Your task to perform on an android device: What is the capital of France? Image 0: 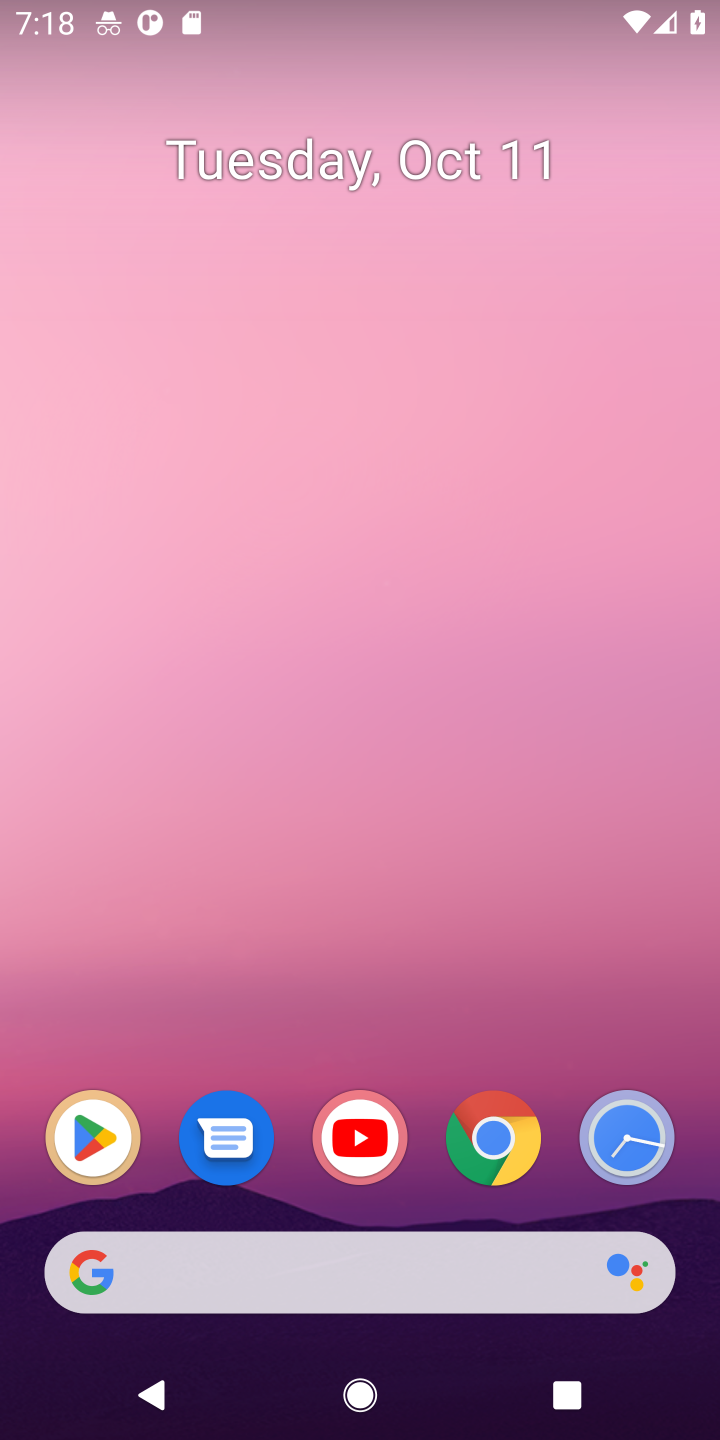
Step 0: click (473, 1146)
Your task to perform on an android device: What is the capital of France? Image 1: 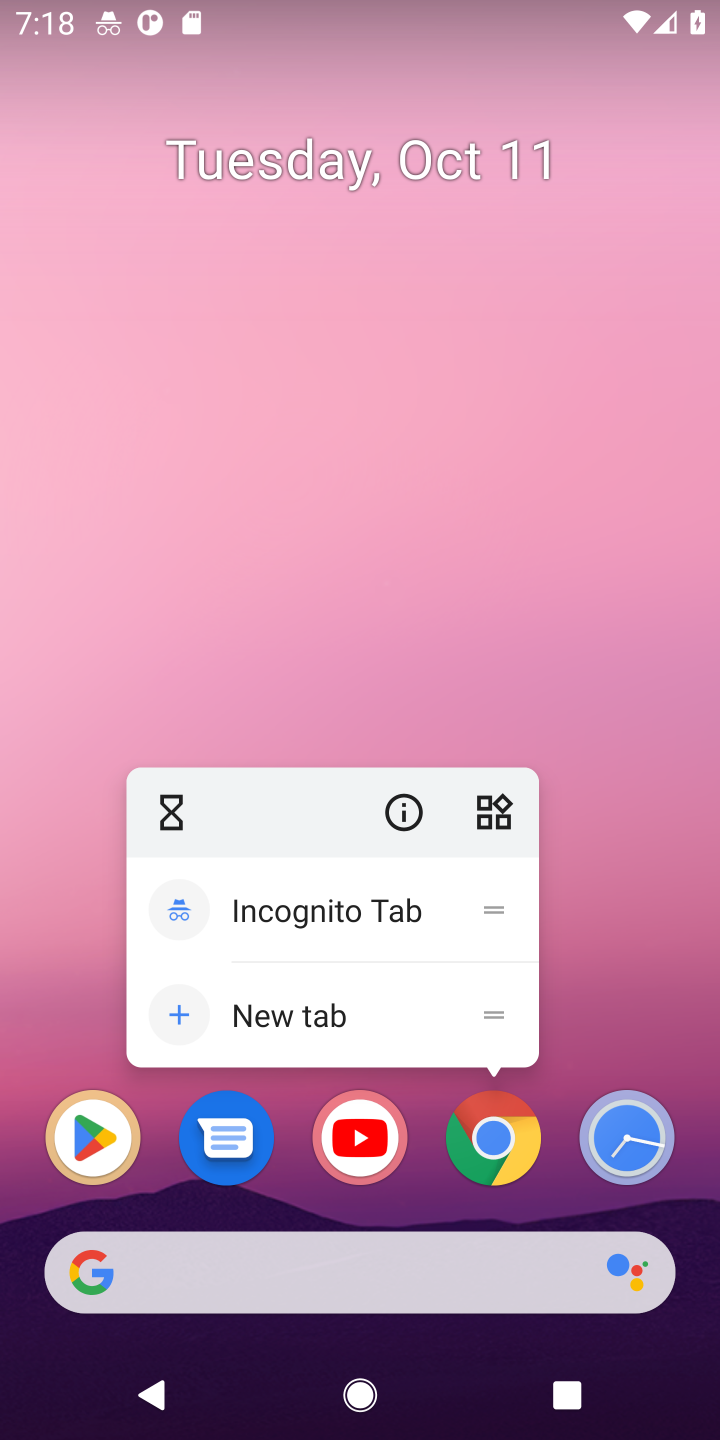
Step 1: click (290, 1258)
Your task to perform on an android device: What is the capital of France? Image 2: 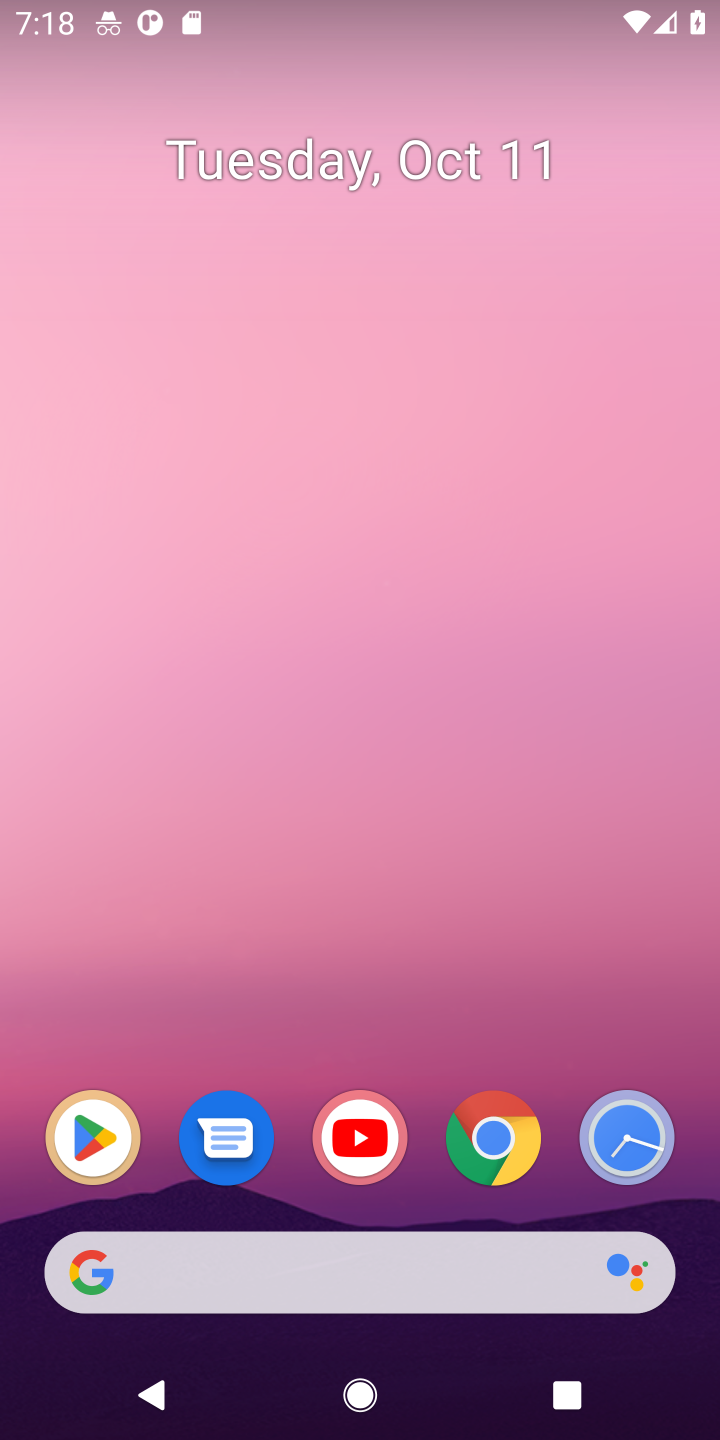
Step 2: click (290, 1258)
Your task to perform on an android device: What is the capital of France? Image 3: 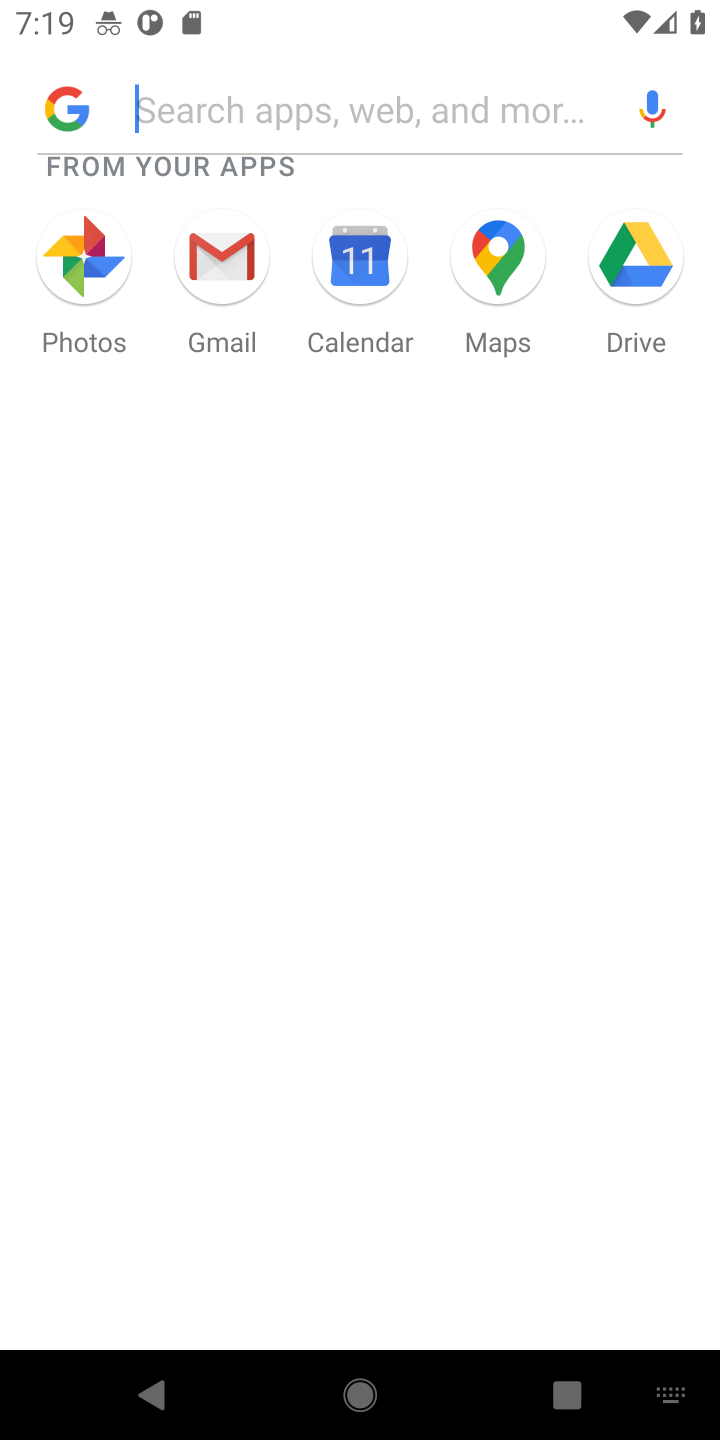
Step 3: type "What is the capital of France?"
Your task to perform on an android device: What is the capital of France? Image 4: 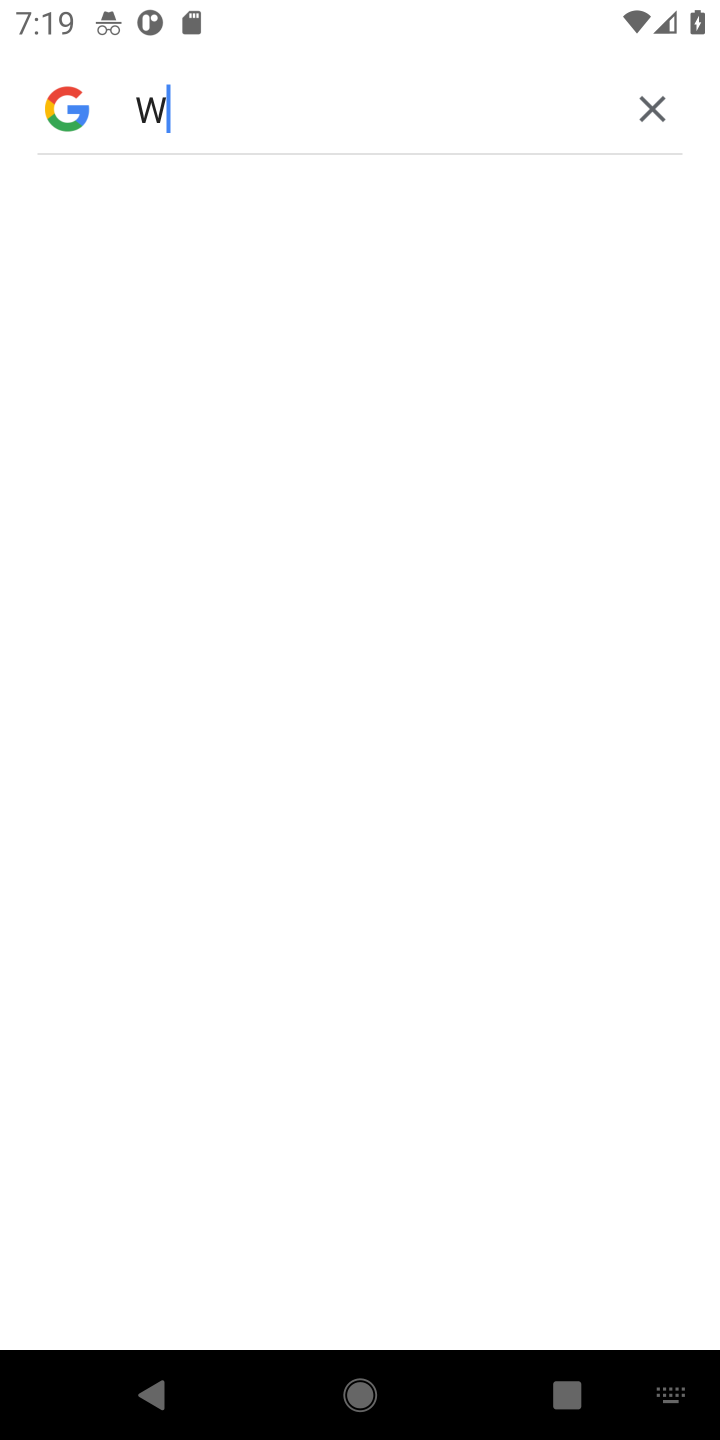
Step 4: click (632, 93)
Your task to perform on an android device: What is the capital of France? Image 5: 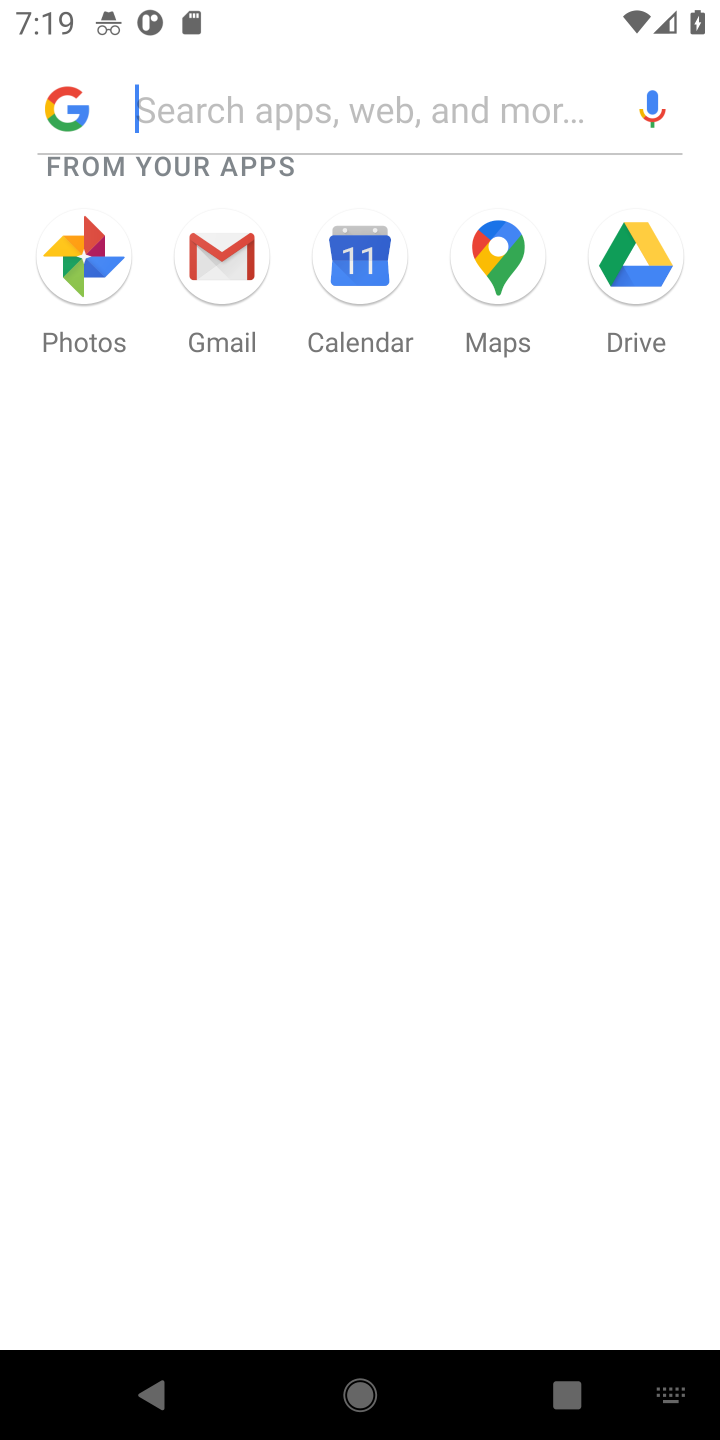
Step 5: type "What is the capital of France?"
Your task to perform on an android device: What is the capital of France? Image 6: 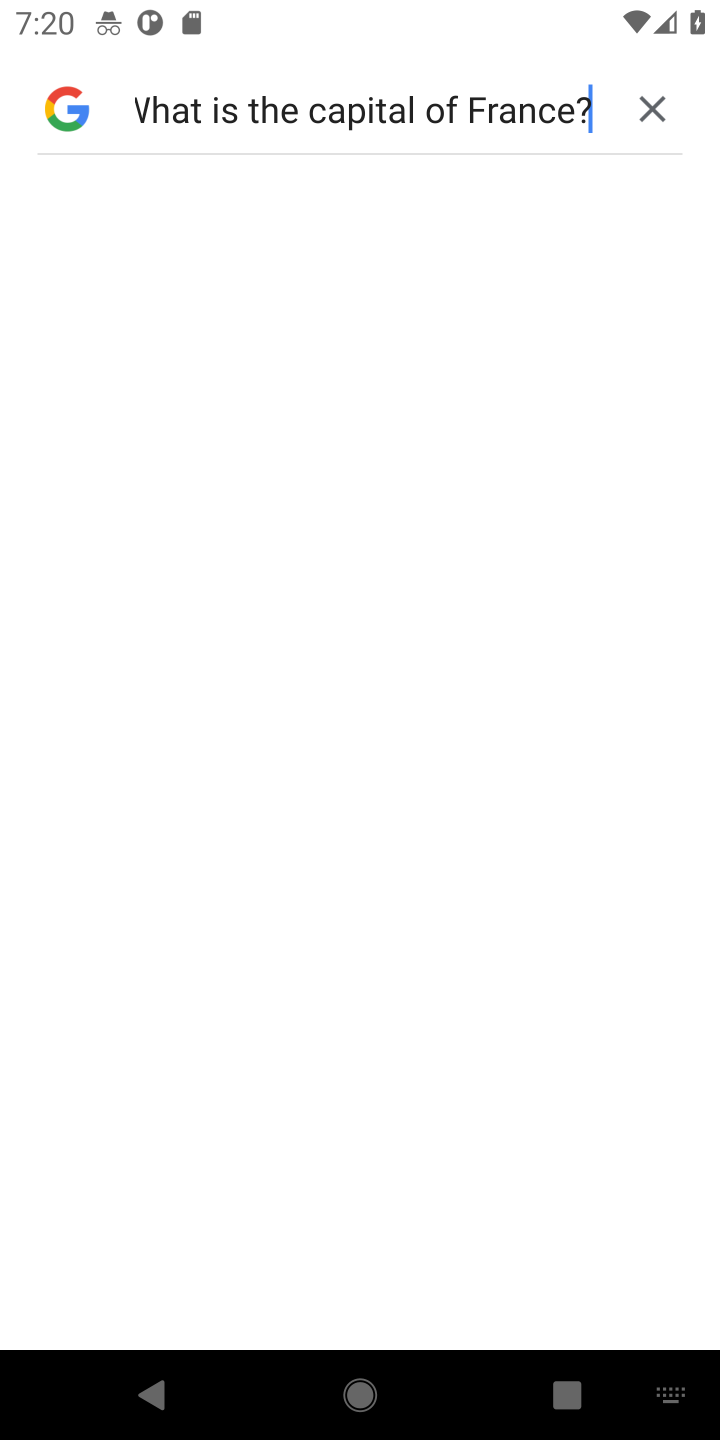
Step 6: click (664, 103)
Your task to perform on an android device: What is the capital of France? Image 7: 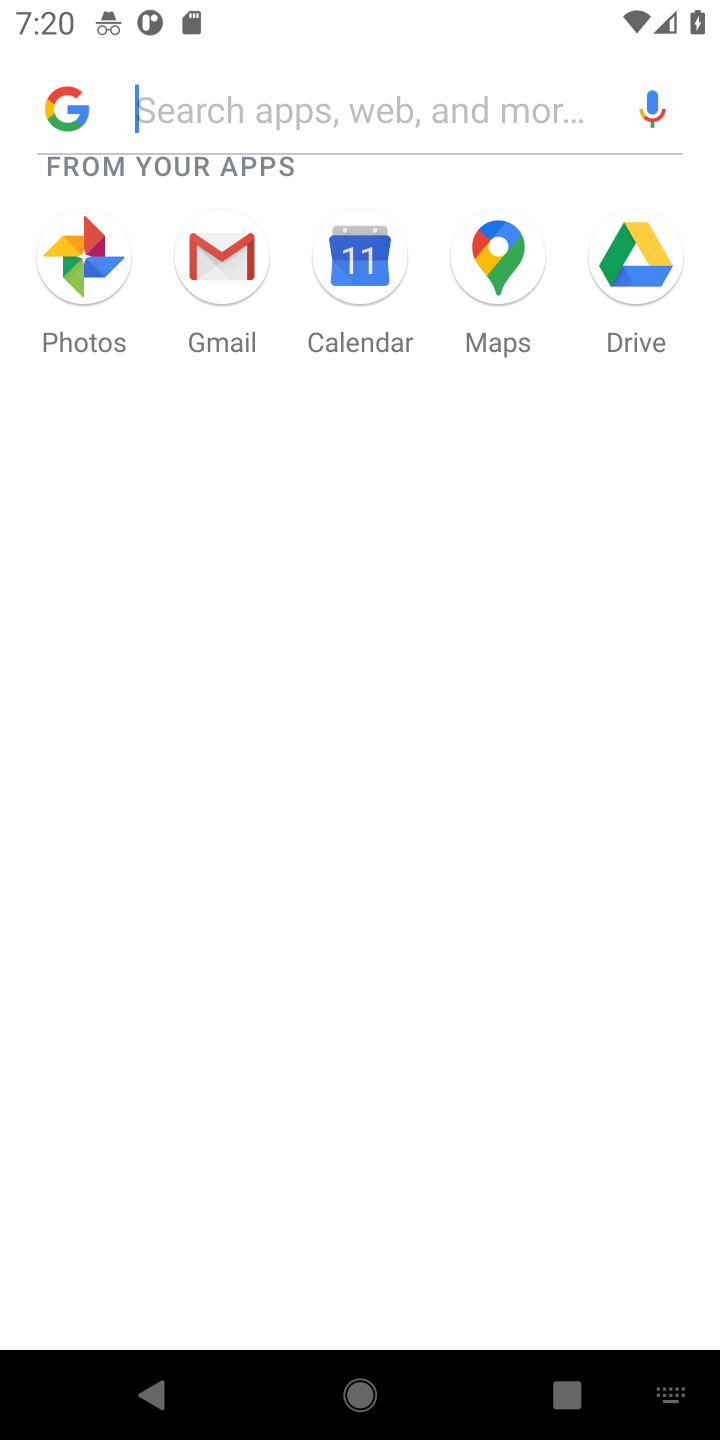
Step 7: press back button
Your task to perform on an android device: What is the capital of France? Image 8: 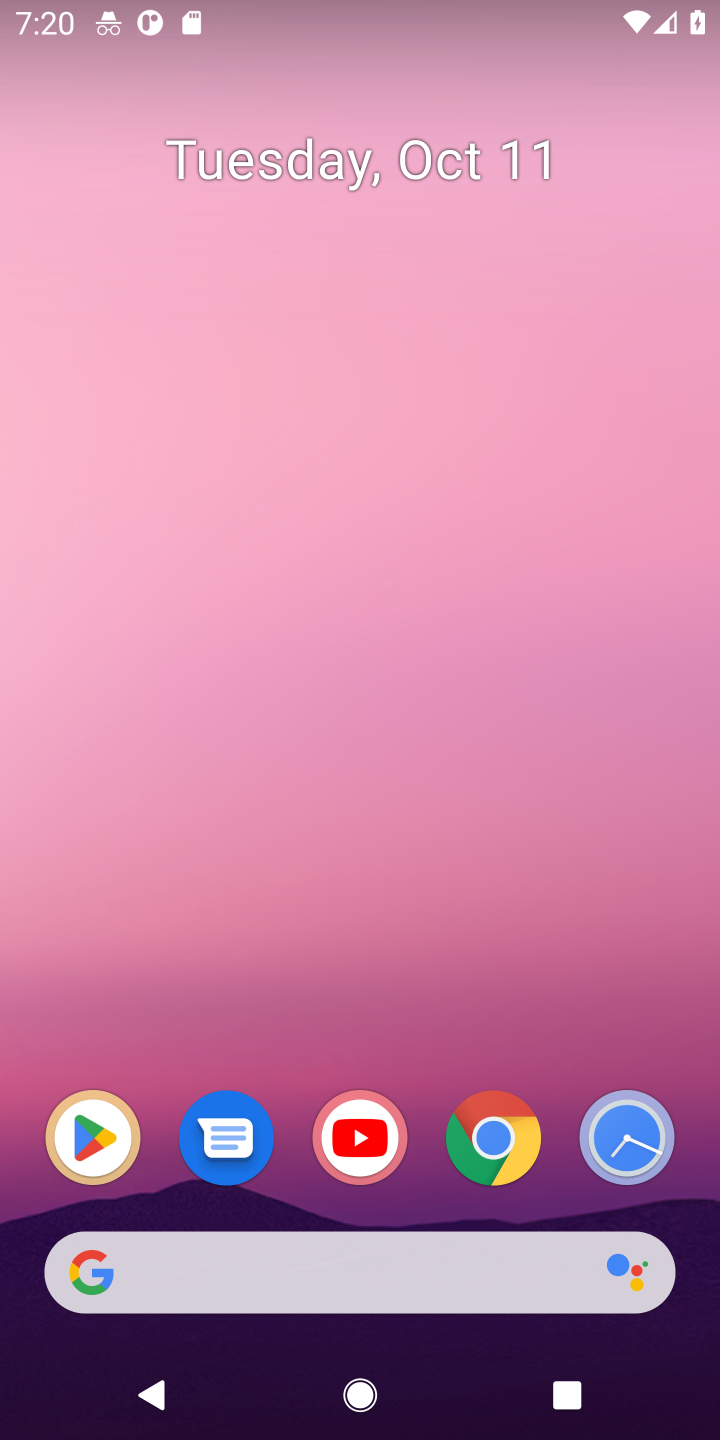
Step 8: click (250, 1277)
Your task to perform on an android device: What is the capital of France? Image 9: 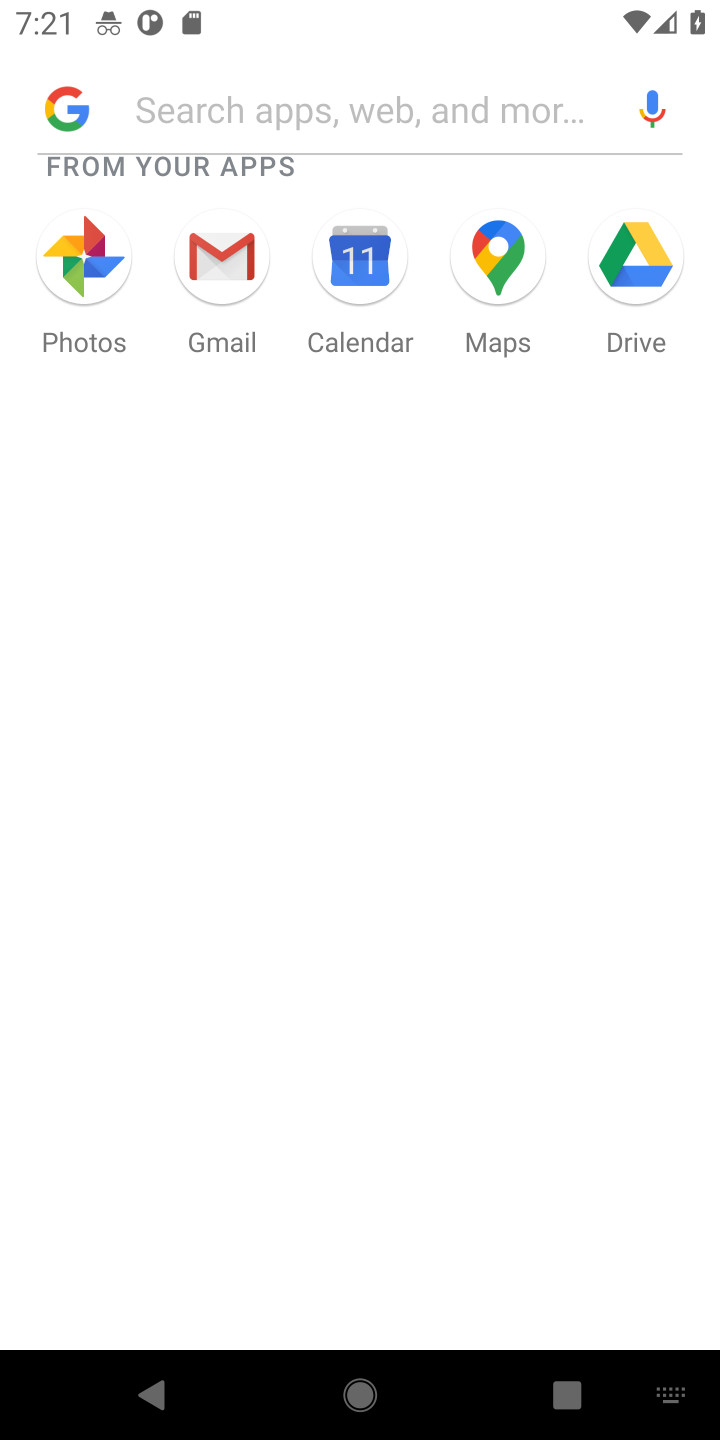
Step 9: press back button
Your task to perform on an android device: What is the capital of France? Image 10: 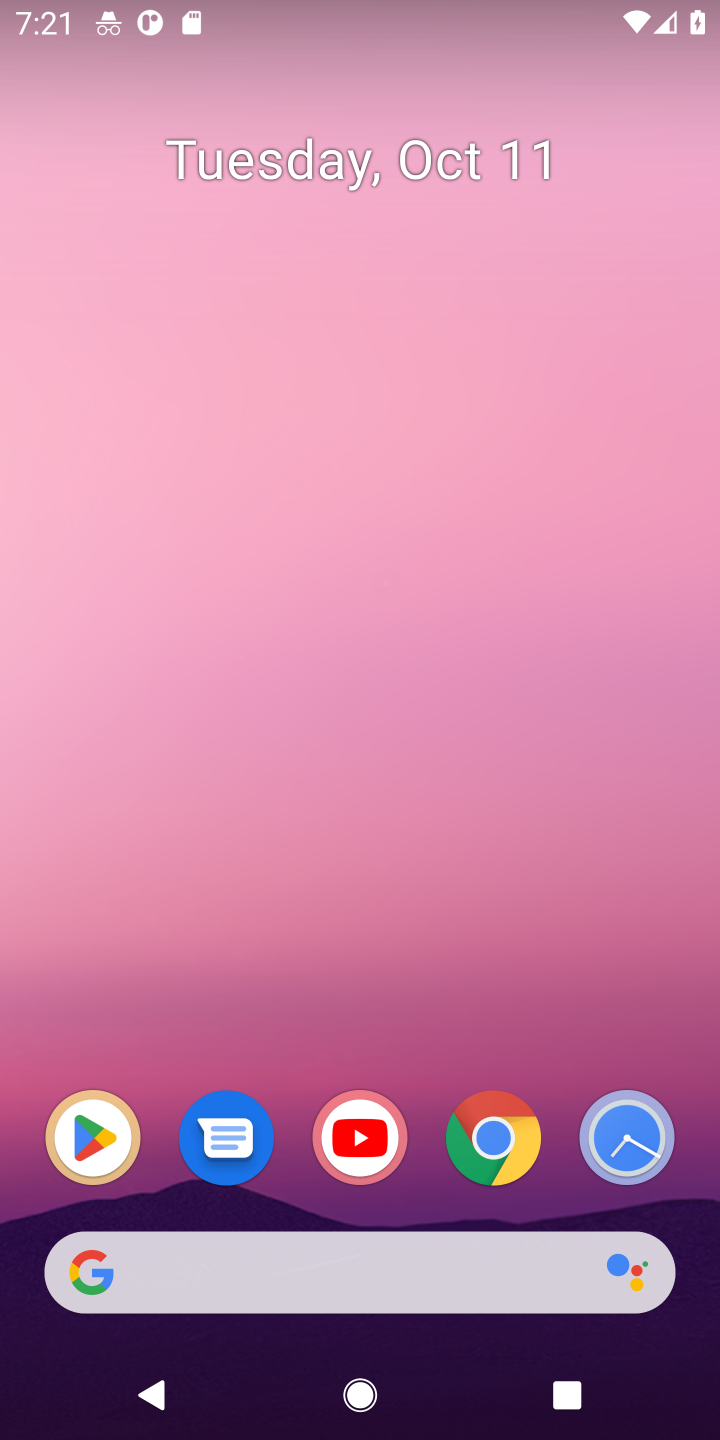
Step 10: click (331, 1255)
Your task to perform on an android device: What is the capital of France? Image 11: 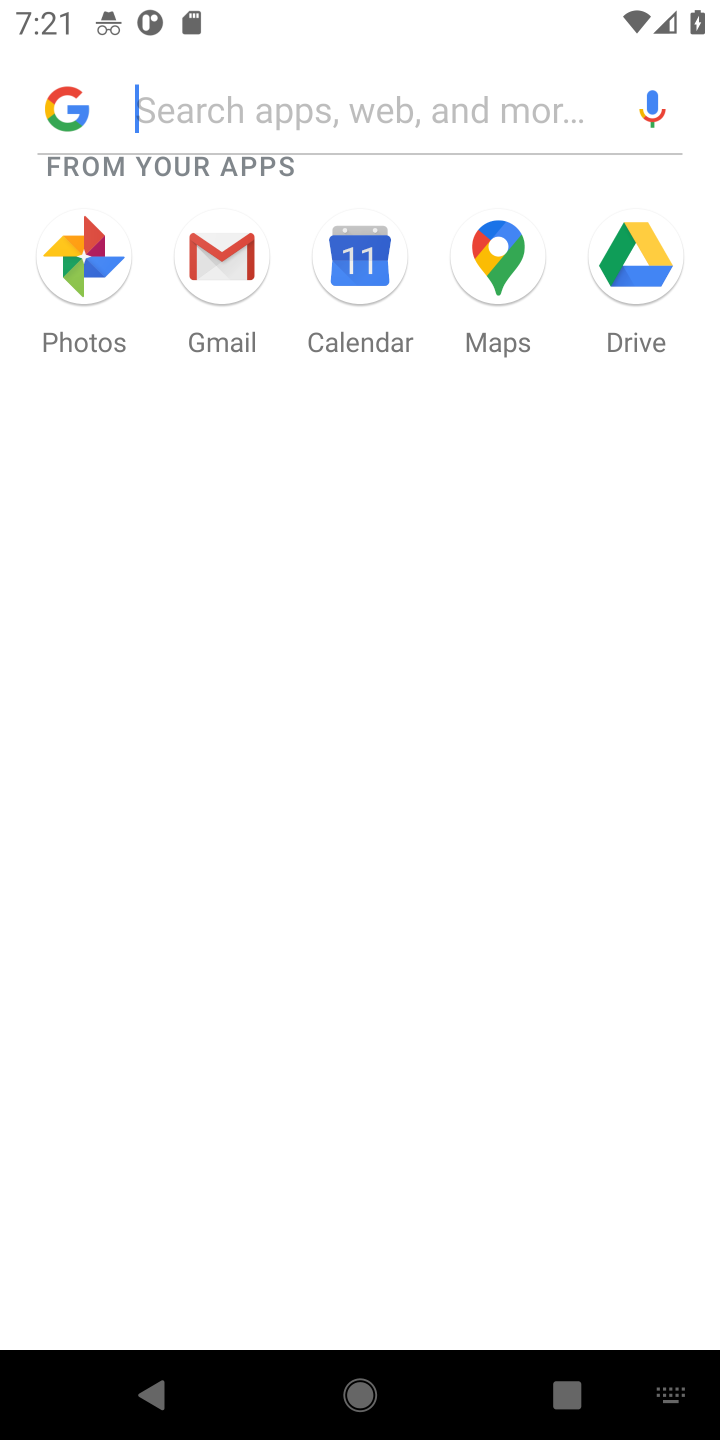
Step 11: type "What is the capital of France?"
Your task to perform on an android device: What is the capital of France? Image 12: 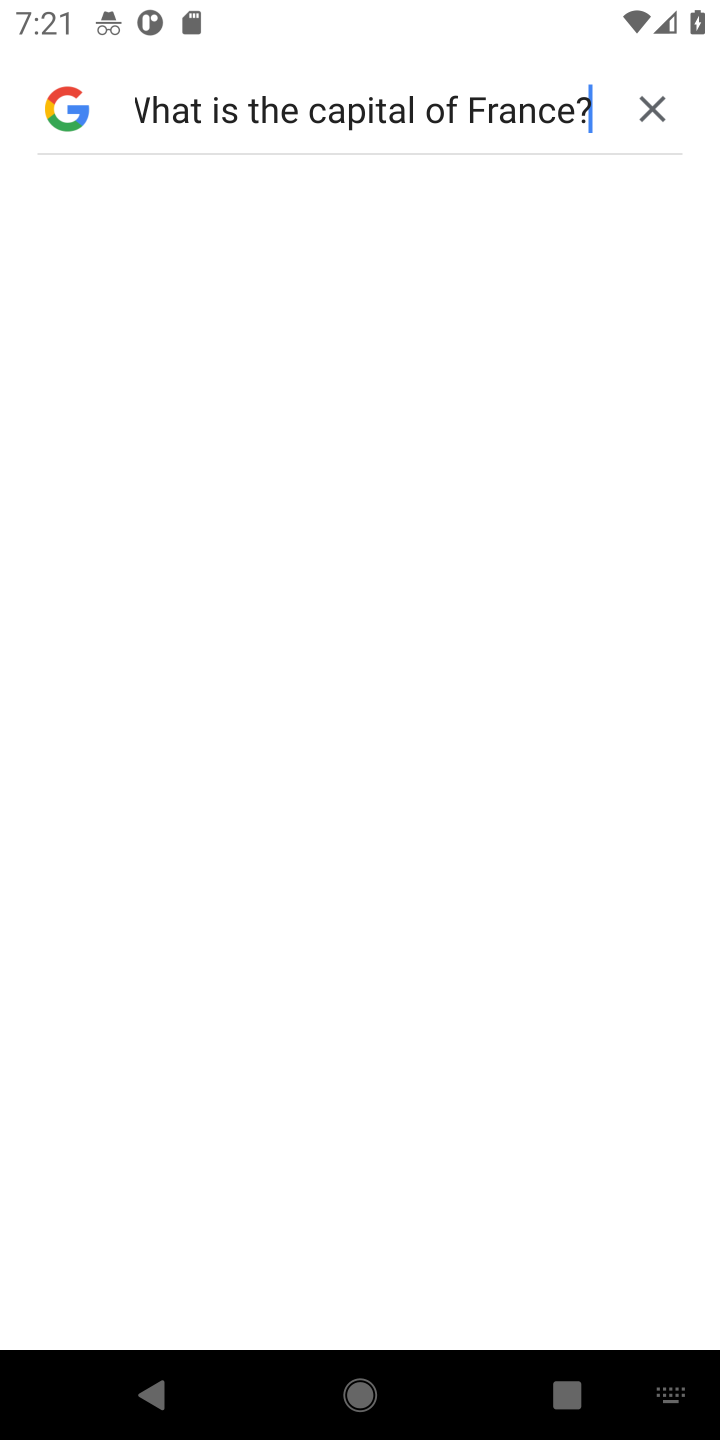
Step 12: task complete